Your task to perform on an android device: create a new album in the google photos Image 0: 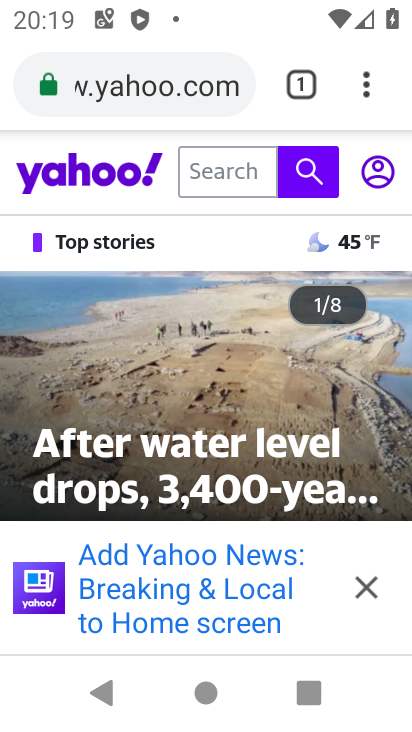
Step 0: press home button
Your task to perform on an android device: create a new album in the google photos Image 1: 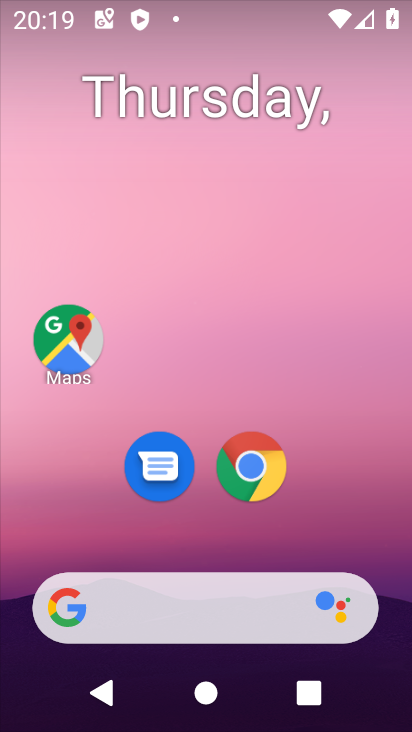
Step 1: drag from (340, 529) to (343, 129)
Your task to perform on an android device: create a new album in the google photos Image 2: 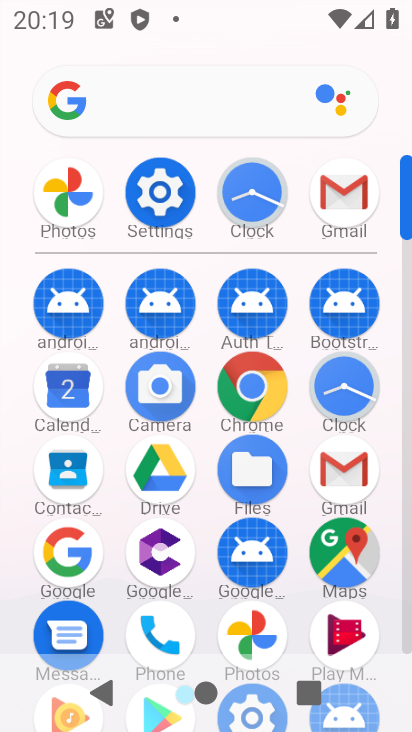
Step 2: click (77, 189)
Your task to perform on an android device: create a new album in the google photos Image 3: 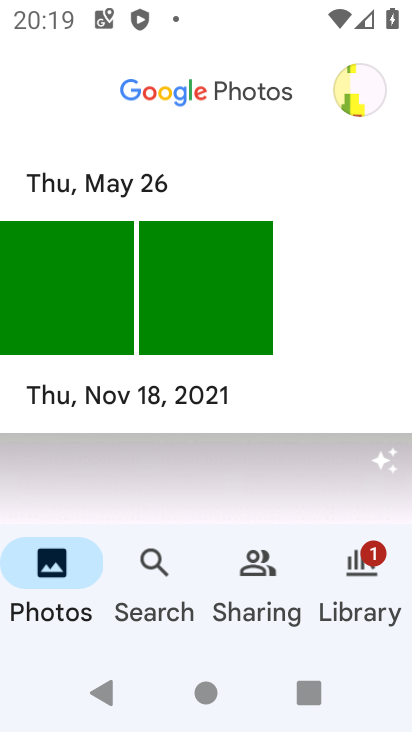
Step 3: click (67, 296)
Your task to perform on an android device: create a new album in the google photos Image 4: 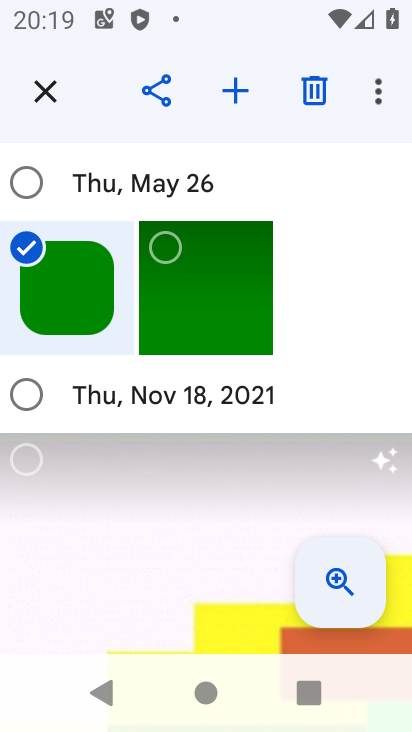
Step 4: click (170, 295)
Your task to perform on an android device: create a new album in the google photos Image 5: 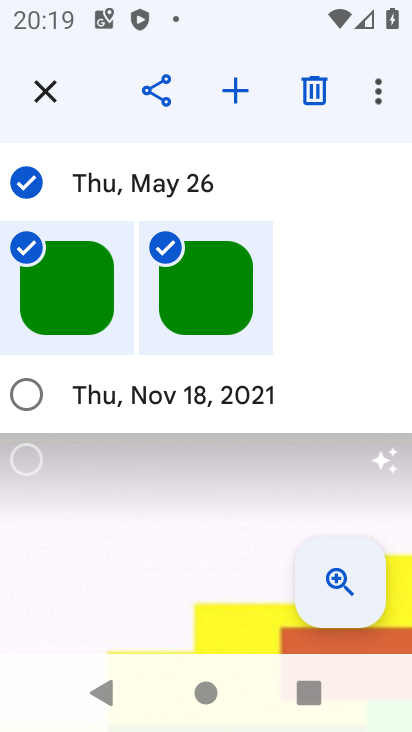
Step 5: click (241, 98)
Your task to perform on an android device: create a new album in the google photos Image 6: 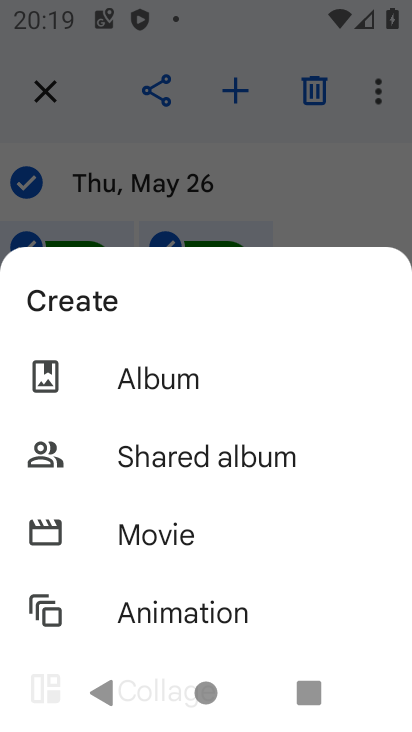
Step 6: click (153, 368)
Your task to perform on an android device: create a new album in the google photos Image 7: 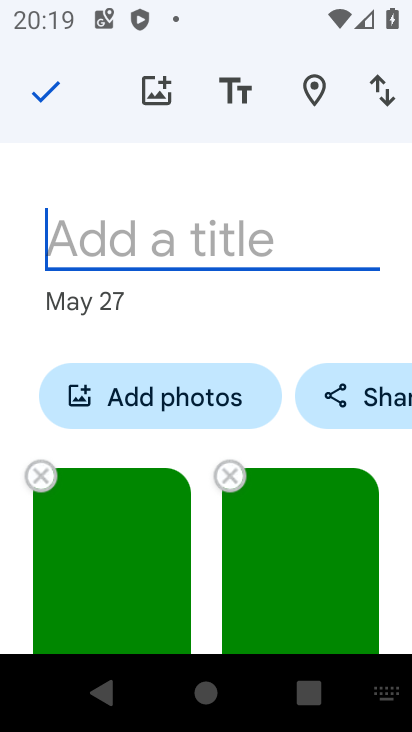
Step 7: type "tffgf"
Your task to perform on an android device: create a new album in the google photos Image 8: 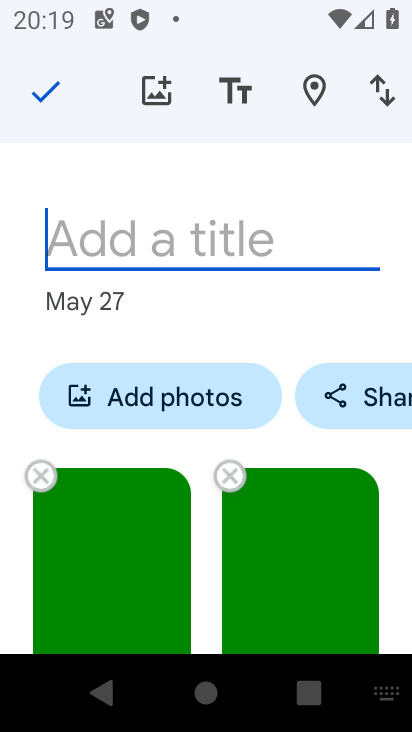
Step 8: click (133, 242)
Your task to perform on an android device: create a new album in the google photos Image 9: 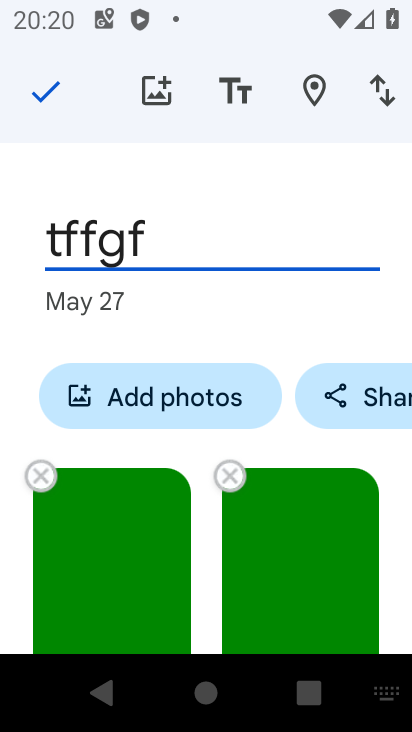
Step 9: click (45, 89)
Your task to perform on an android device: create a new album in the google photos Image 10: 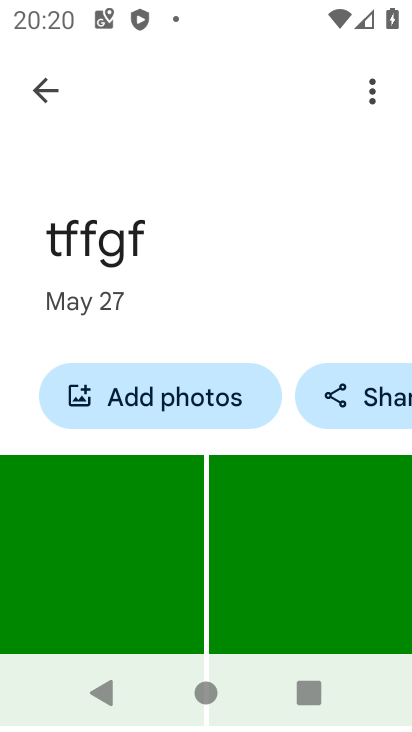
Step 10: task complete